Your task to perform on an android device: open sync settings in chrome Image 0: 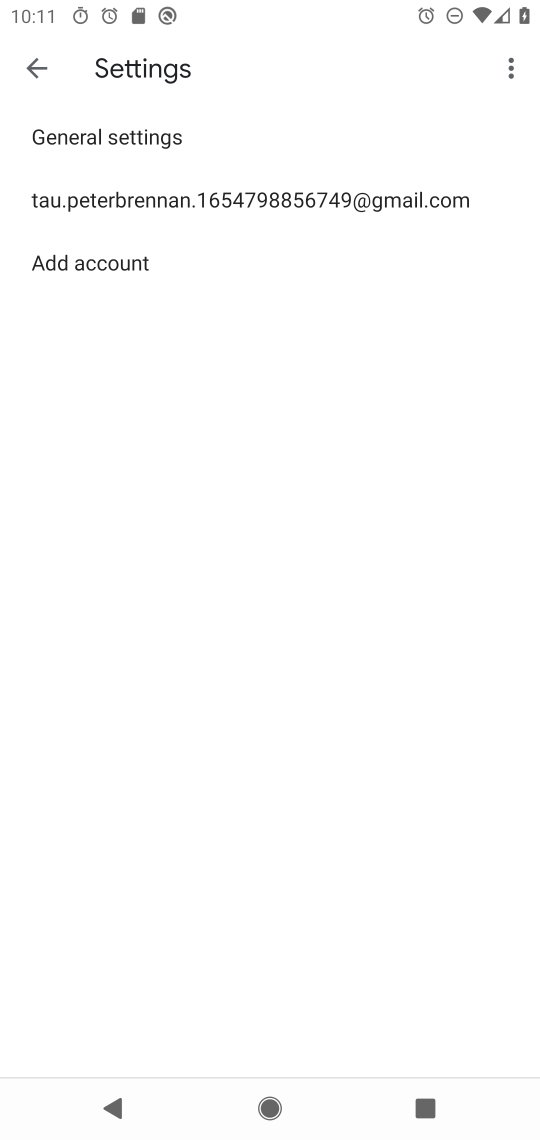
Step 0: press home button
Your task to perform on an android device: open sync settings in chrome Image 1: 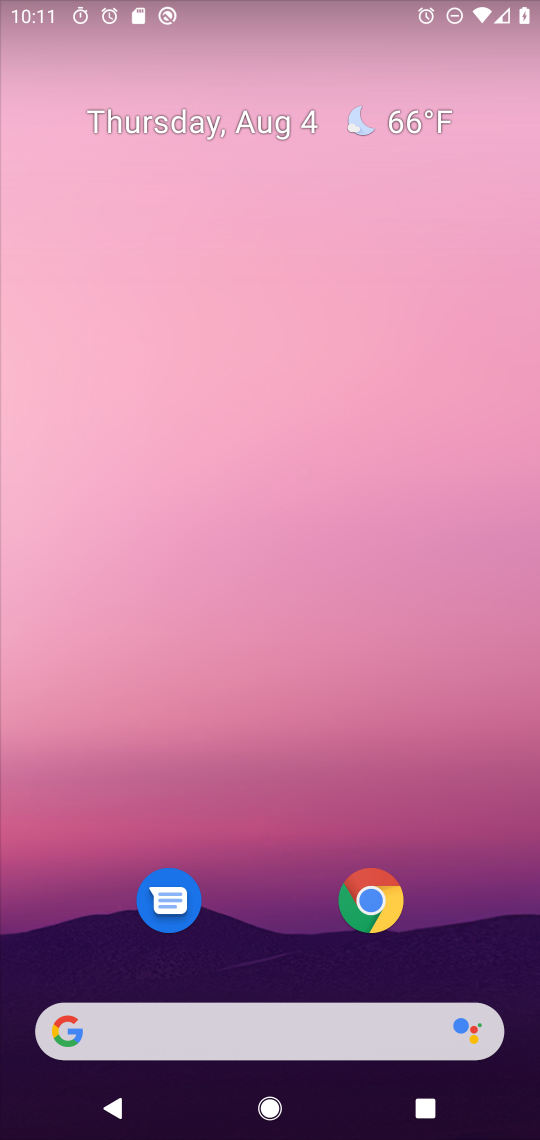
Step 1: click (368, 902)
Your task to perform on an android device: open sync settings in chrome Image 2: 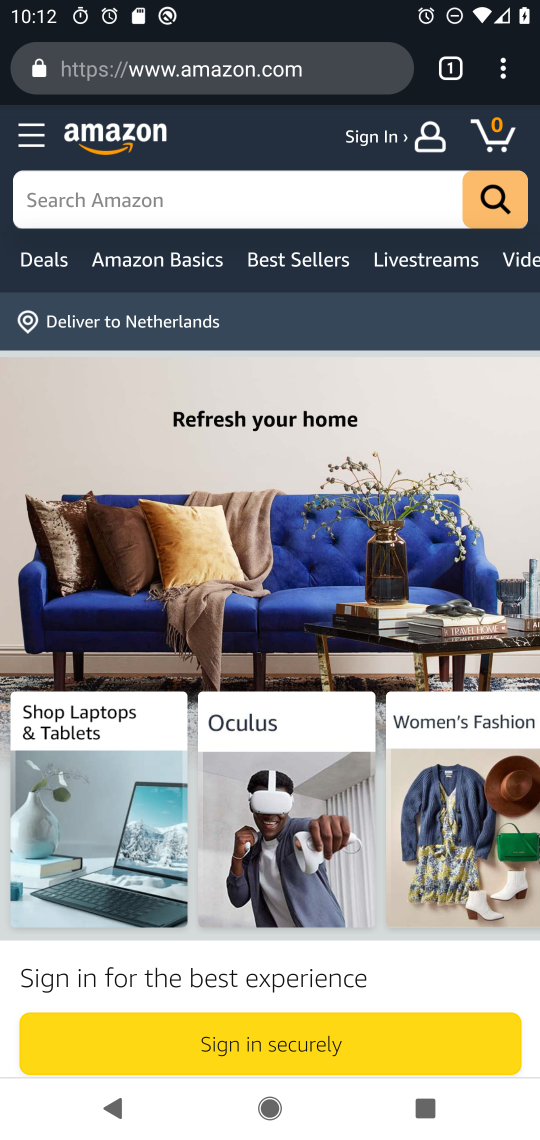
Step 2: drag from (505, 68) to (294, 901)
Your task to perform on an android device: open sync settings in chrome Image 3: 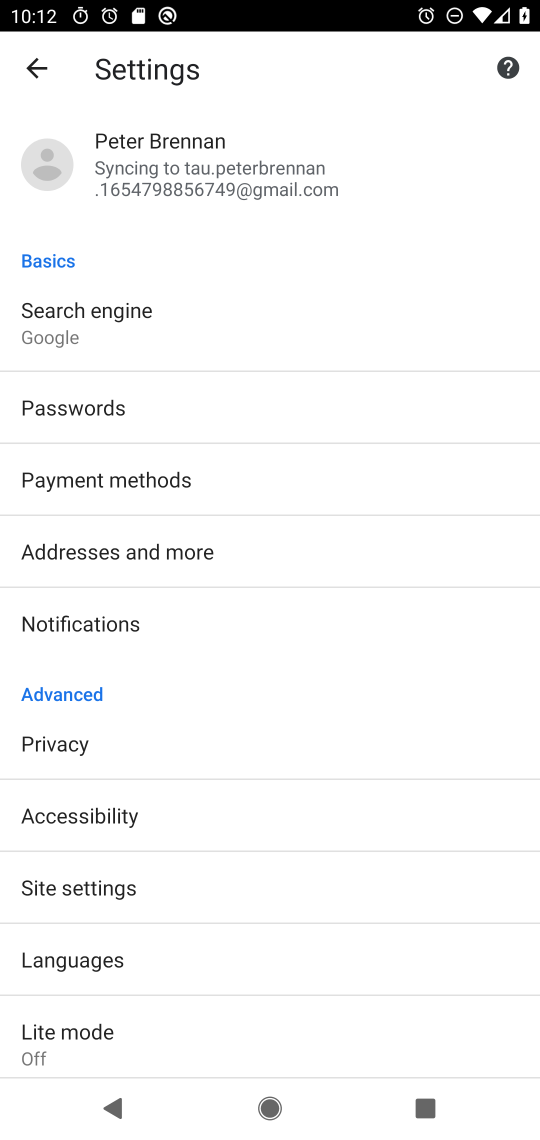
Step 3: drag from (170, 813) to (239, 499)
Your task to perform on an android device: open sync settings in chrome Image 4: 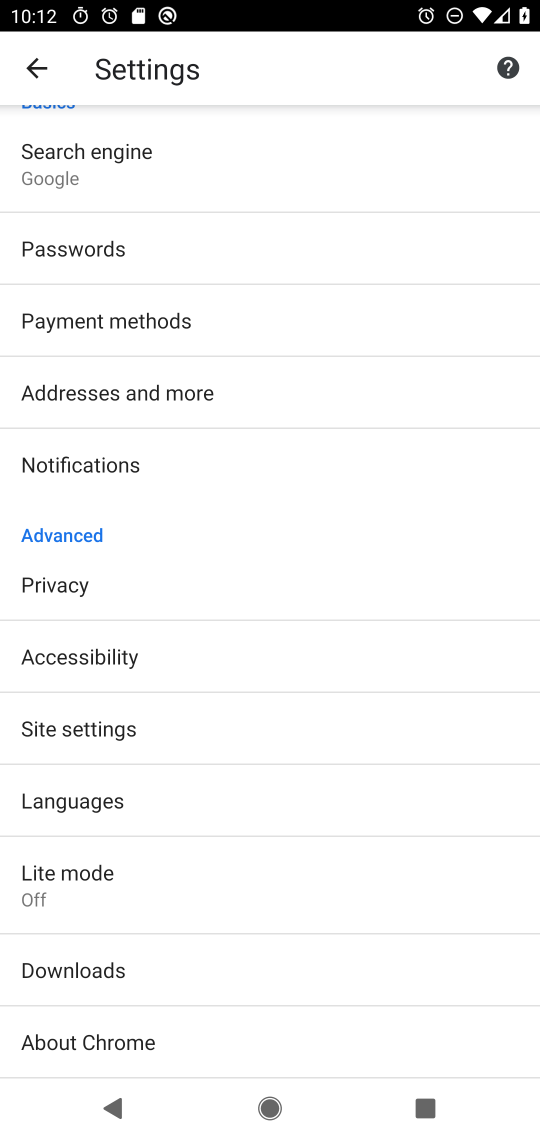
Step 4: click (76, 729)
Your task to perform on an android device: open sync settings in chrome Image 5: 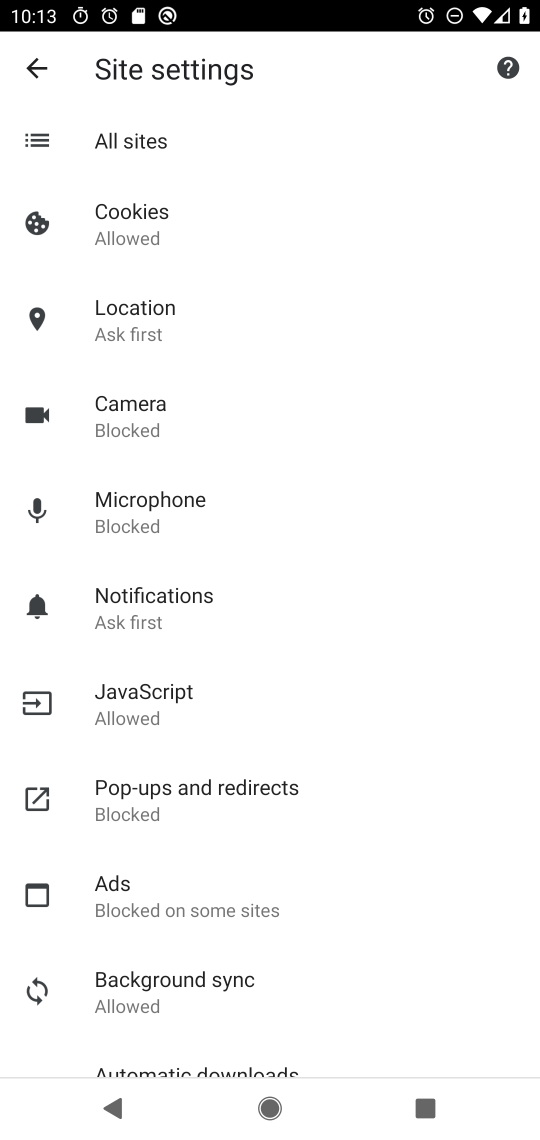
Step 5: click (152, 989)
Your task to perform on an android device: open sync settings in chrome Image 6: 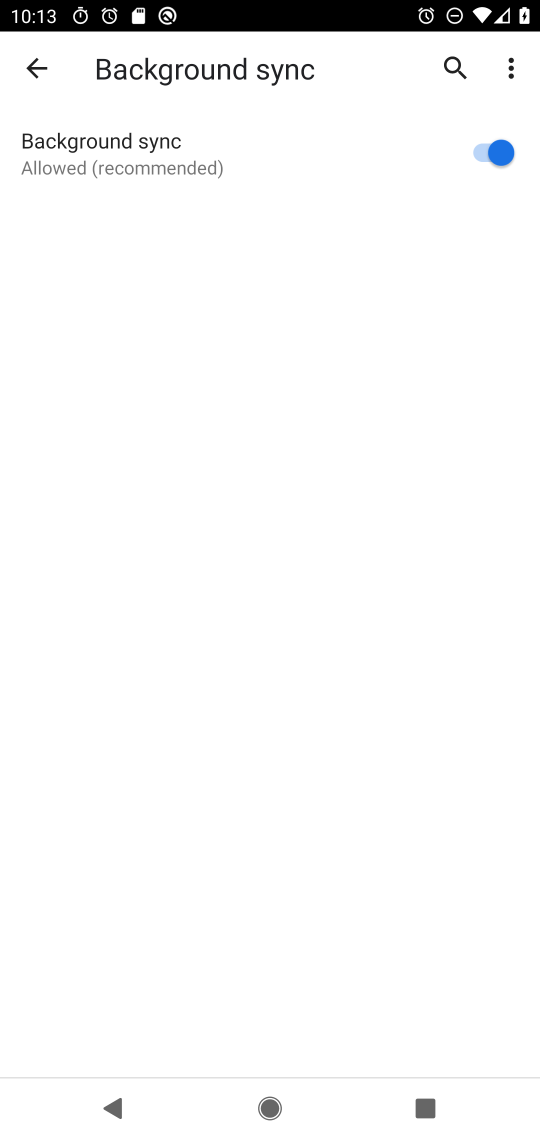
Step 6: task complete